Your task to perform on an android device: toggle improve location accuracy Image 0: 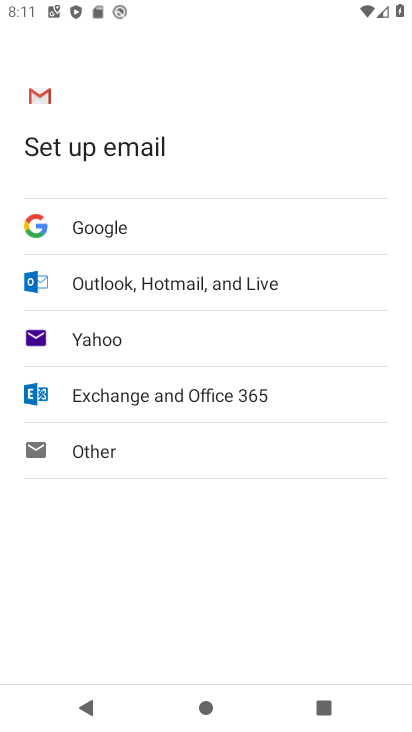
Step 0: press home button
Your task to perform on an android device: toggle improve location accuracy Image 1: 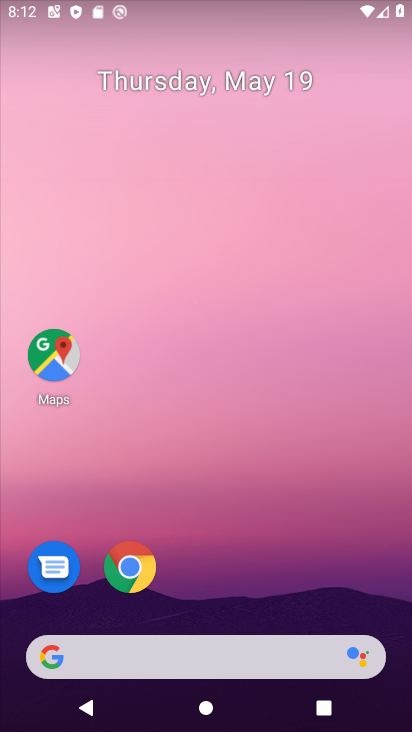
Step 1: drag from (249, 620) to (235, 180)
Your task to perform on an android device: toggle improve location accuracy Image 2: 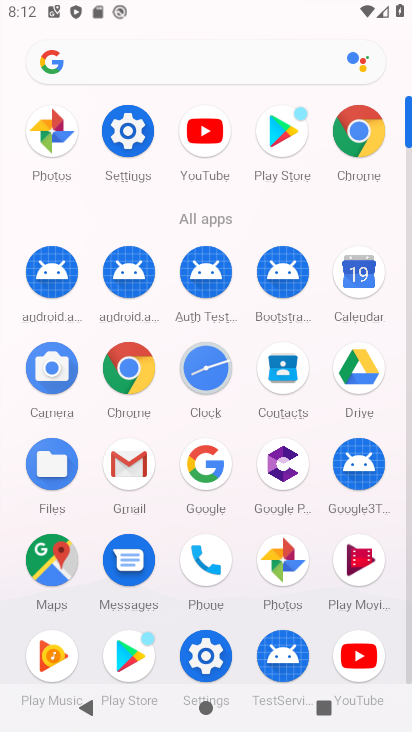
Step 2: click (129, 113)
Your task to perform on an android device: toggle improve location accuracy Image 3: 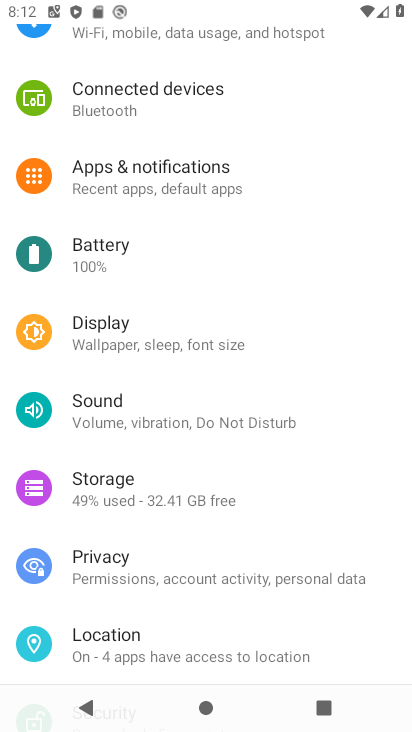
Step 3: click (85, 635)
Your task to perform on an android device: toggle improve location accuracy Image 4: 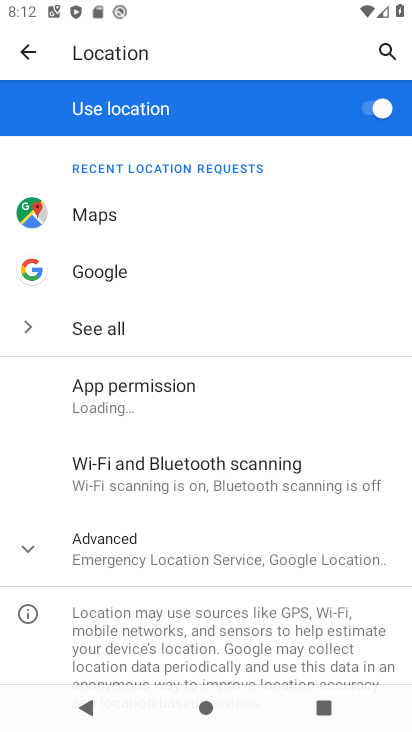
Step 4: drag from (85, 635) to (123, 206)
Your task to perform on an android device: toggle improve location accuracy Image 5: 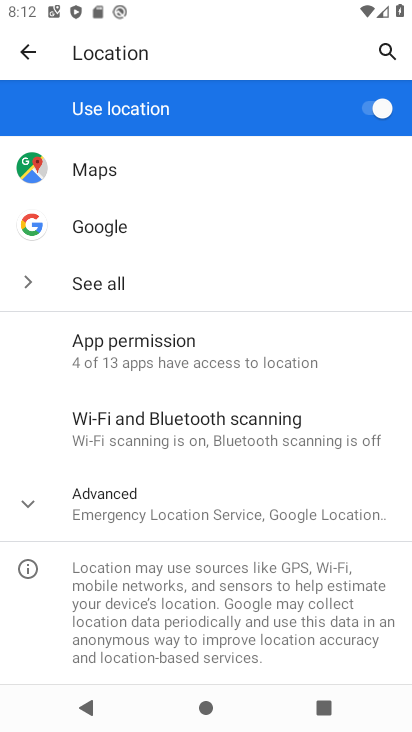
Step 5: click (204, 512)
Your task to perform on an android device: toggle improve location accuracy Image 6: 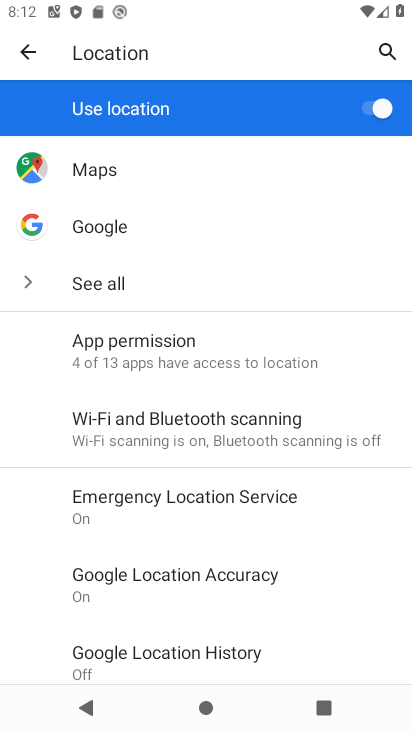
Step 6: click (191, 568)
Your task to perform on an android device: toggle improve location accuracy Image 7: 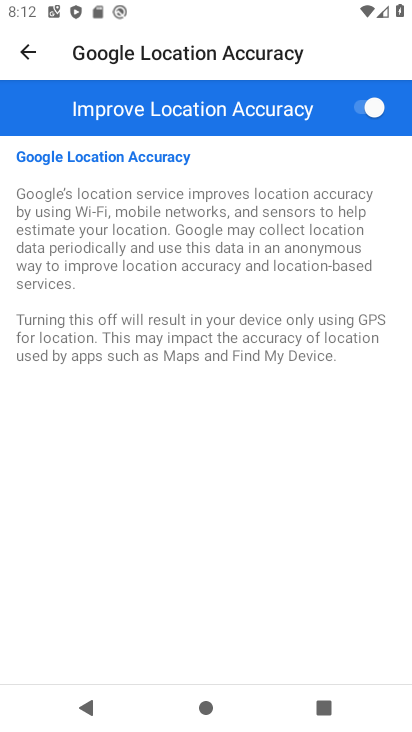
Step 7: click (365, 106)
Your task to perform on an android device: toggle improve location accuracy Image 8: 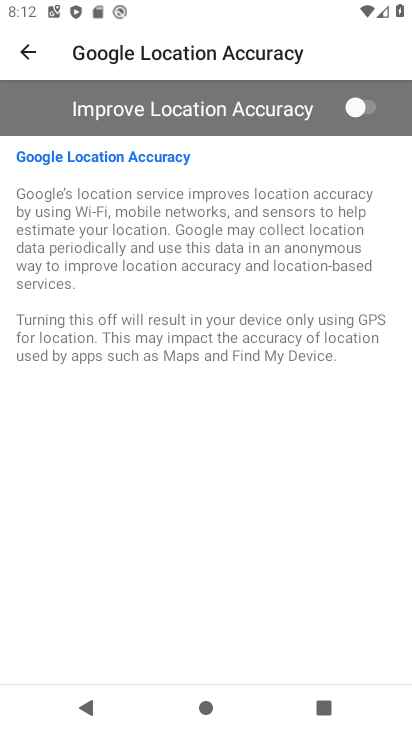
Step 8: click (365, 106)
Your task to perform on an android device: toggle improve location accuracy Image 9: 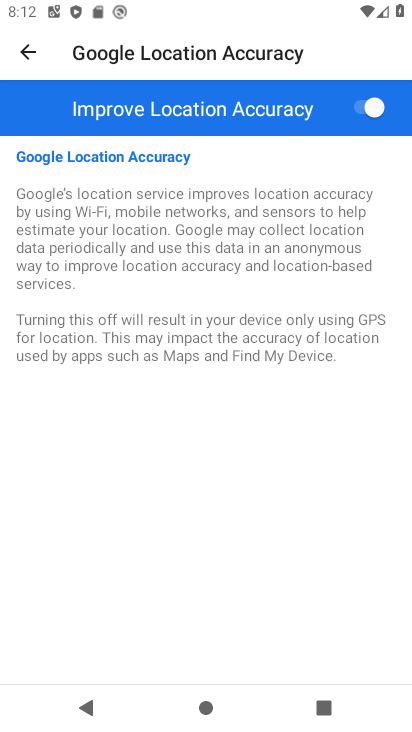
Step 9: task complete